Your task to perform on an android device: check data usage Image 0: 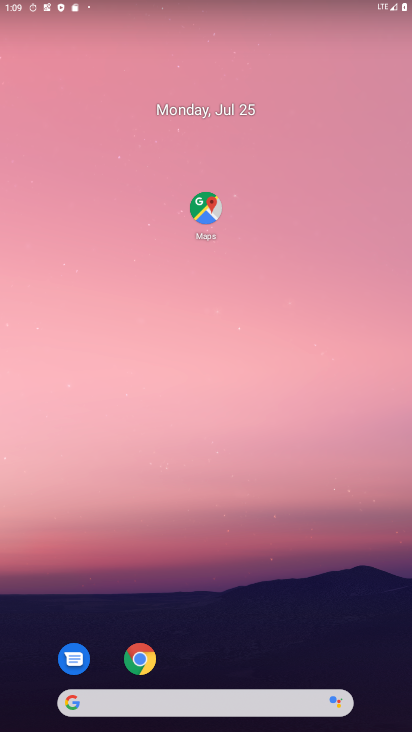
Step 0: drag from (23, 656) to (268, 99)
Your task to perform on an android device: check data usage Image 1: 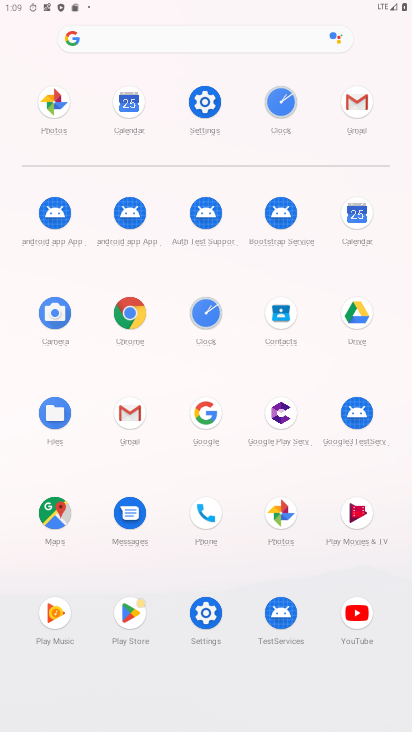
Step 1: click (199, 630)
Your task to perform on an android device: check data usage Image 2: 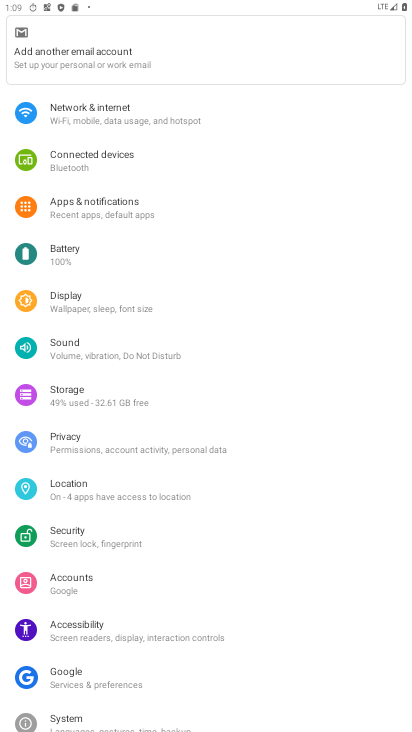
Step 2: click (100, 115)
Your task to perform on an android device: check data usage Image 3: 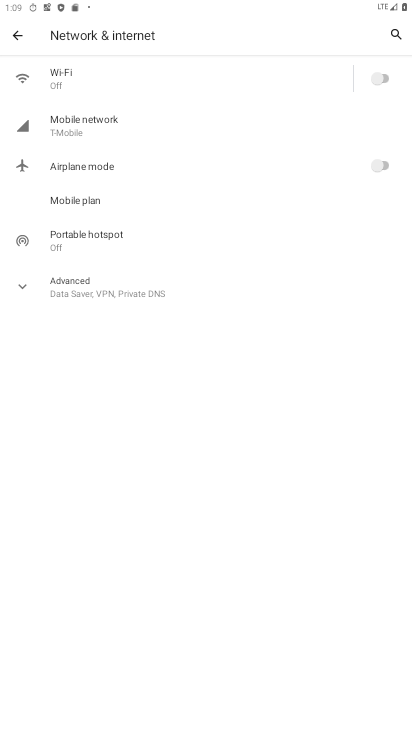
Step 3: click (84, 113)
Your task to perform on an android device: check data usage Image 4: 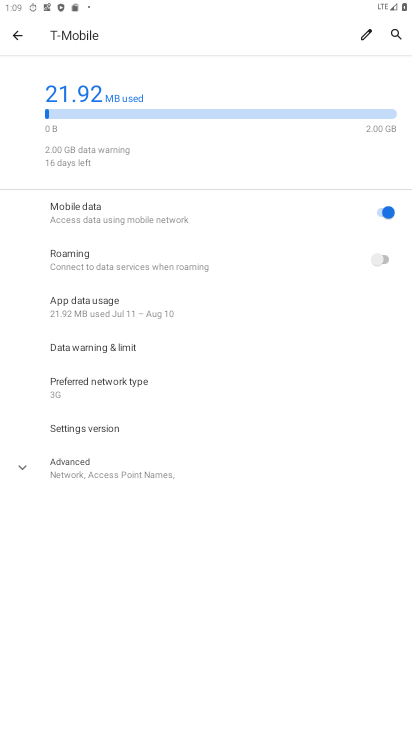
Step 4: task complete